Your task to perform on an android device: turn vacation reply on in the gmail app Image 0: 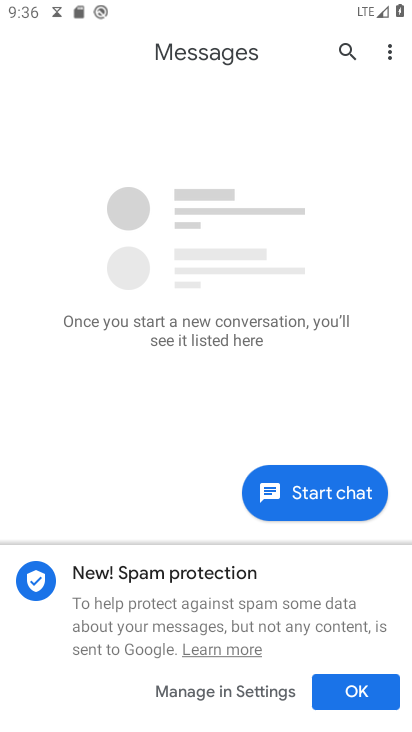
Step 0: press home button
Your task to perform on an android device: turn vacation reply on in the gmail app Image 1: 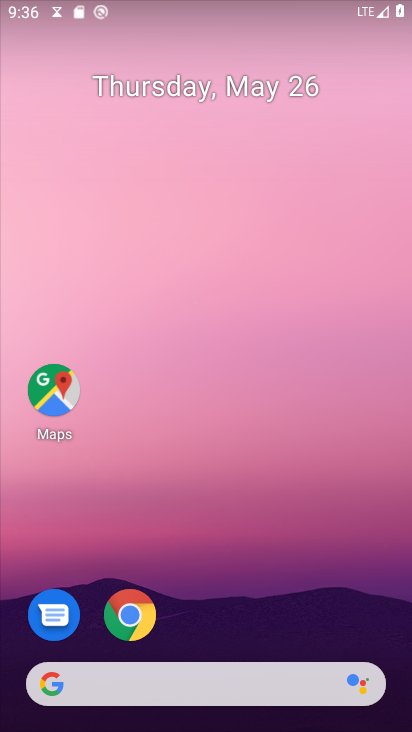
Step 1: drag from (267, 651) to (288, 292)
Your task to perform on an android device: turn vacation reply on in the gmail app Image 2: 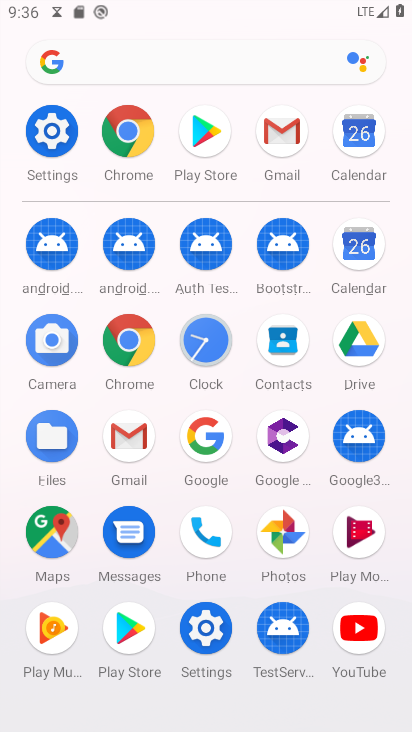
Step 2: click (48, 120)
Your task to perform on an android device: turn vacation reply on in the gmail app Image 3: 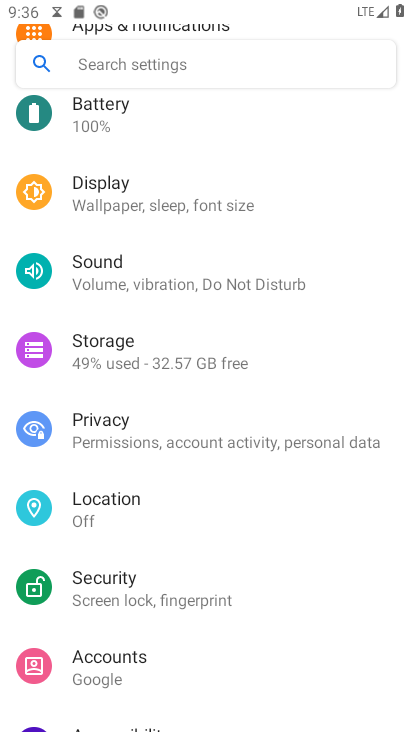
Step 3: press home button
Your task to perform on an android device: turn vacation reply on in the gmail app Image 4: 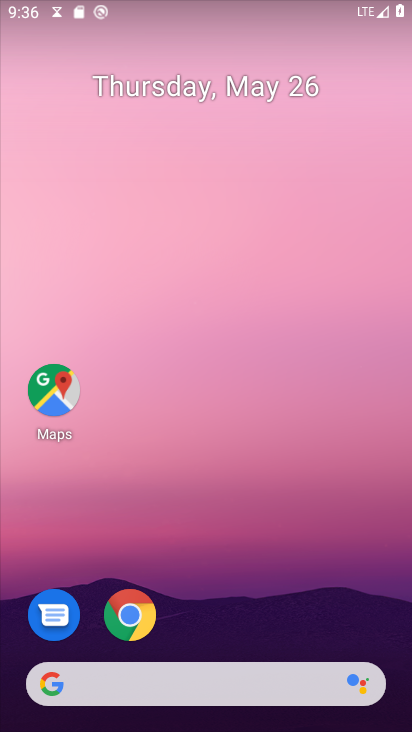
Step 4: drag from (305, 436) to (317, 235)
Your task to perform on an android device: turn vacation reply on in the gmail app Image 5: 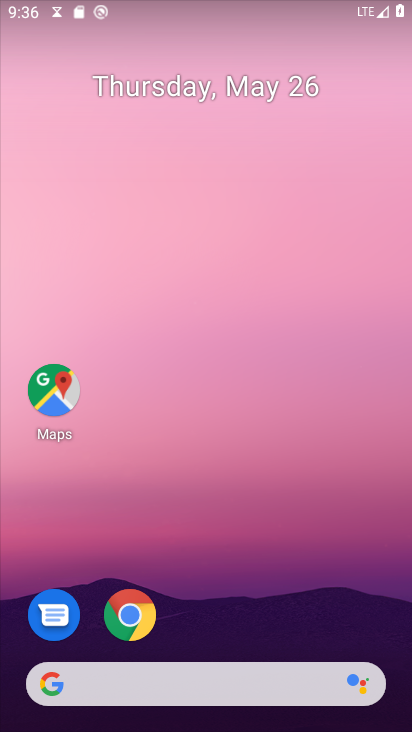
Step 5: drag from (245, 599) to (258, 355)
Your task to perform on an android device: turn vacation reply on in the gmail app Image 6: 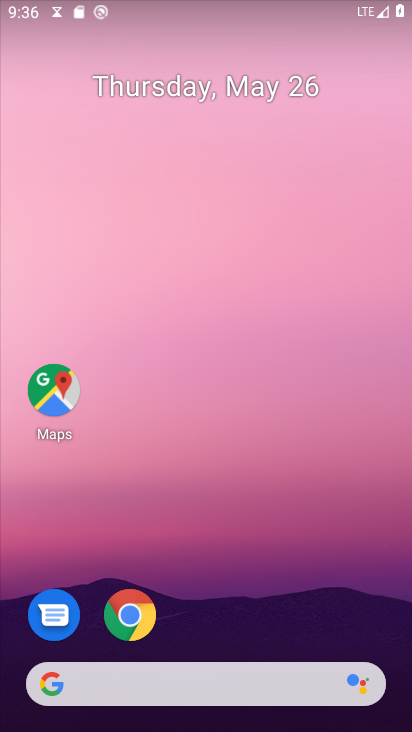
Step 6: drag from (213, 639) to (244, 286)
Your task to perform on an android device: turn vacation reply on in the gmail app Image 7: 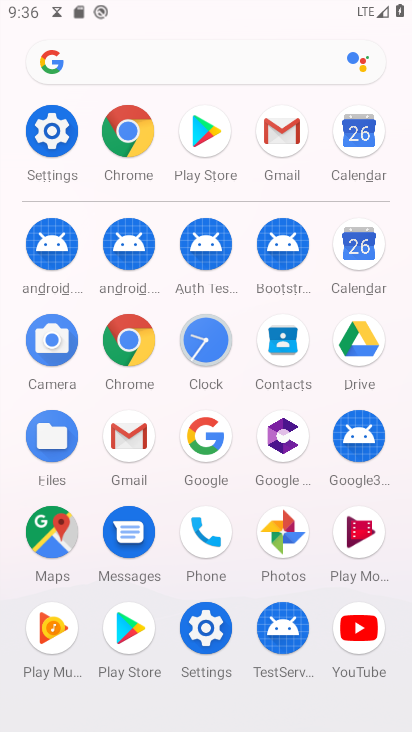
Step 7: click (282, 124)
Your task to perform on an android device: turn vacation reply on in the gmail app Image 8: 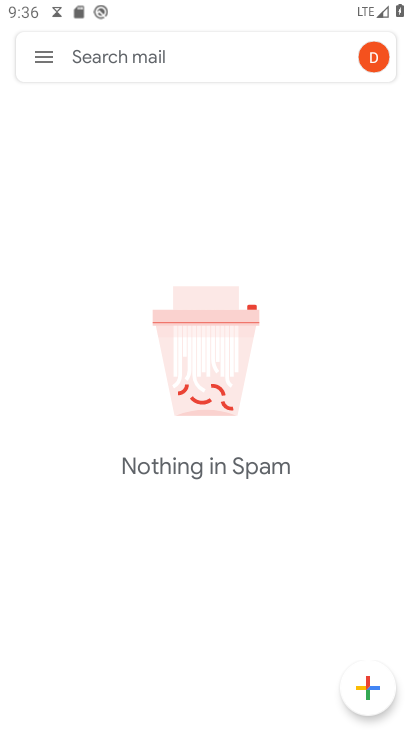
Step 8: click (38, 45)
Your task to perform on an android device: turn vacation reply on in the gmail app Image 9: 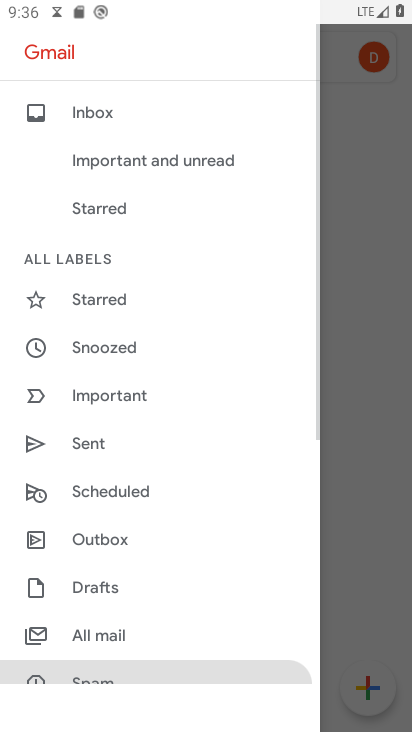
Step 9: drag from (155, 603) to (169, 274)
Your task to perform on an android device: turn vacation reply on in the gmail app Image 10: 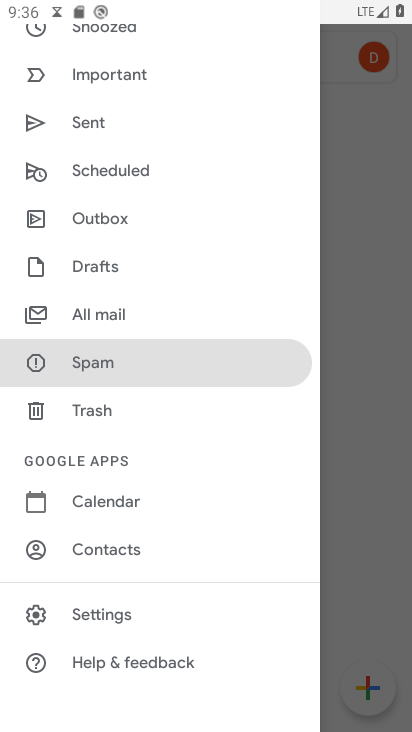
Step 10: click (100, 615)
Your task to perform on an android device: turn vacation reply on in the gmail app Image 11: 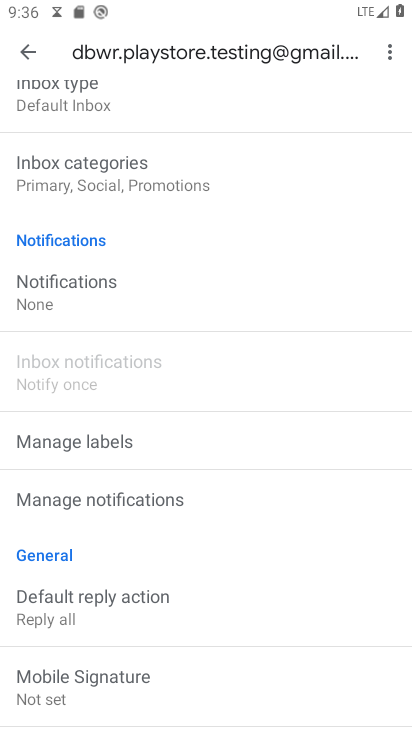
Step 11: drag from (192, 601) to (240, 216)
Your task to perform on an android device: turn vacation reply on in the gmail app Image 12: 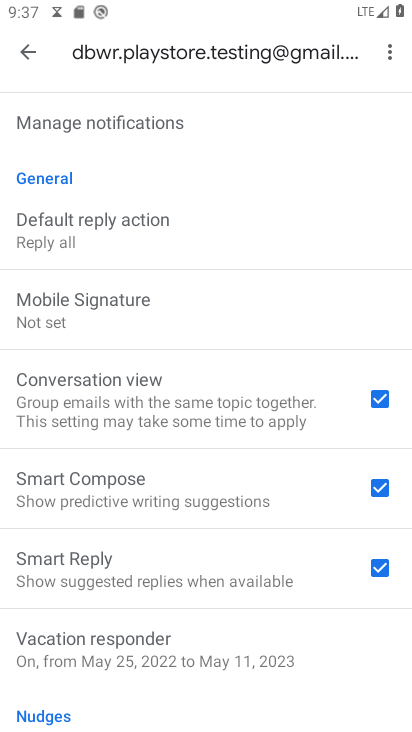
Step 12: click (168, 639)
Your task to perform on an android device: turn vacation reply on in the gmail app Image 13: 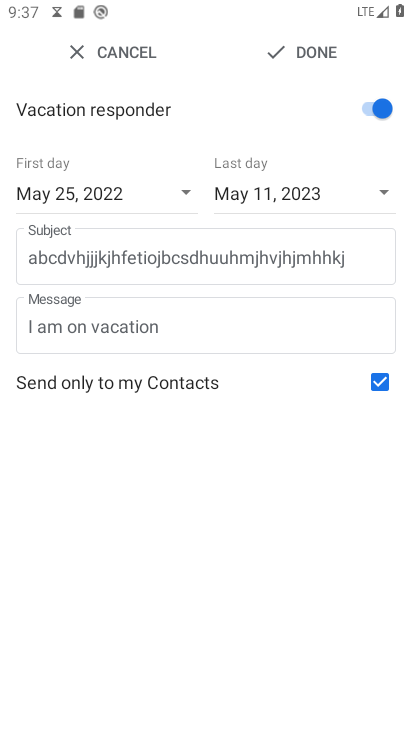
Step 13: task complete